Your task to perform on an android device: turn off wifi Image 0: 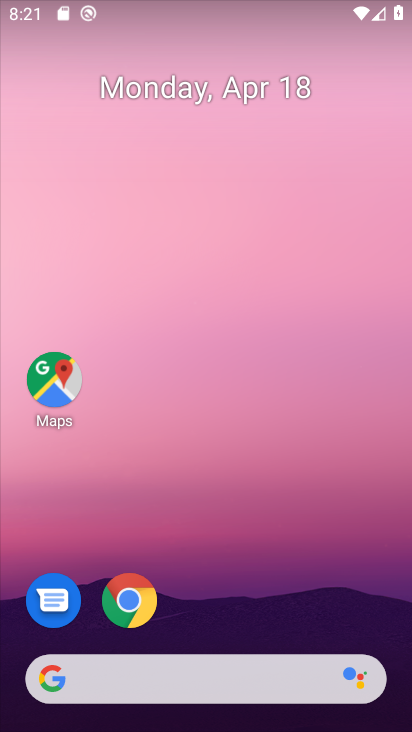
Step 0: drag from (329, 543) to (243, 11)
Your task to perform on an android device: turn off wifi Image 1: 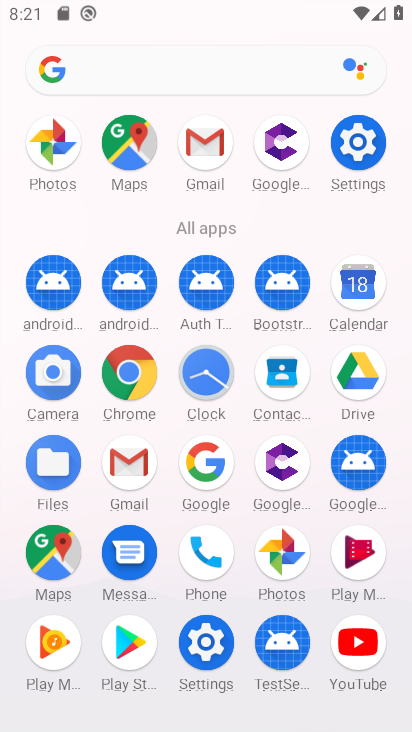
Step 1: click (206, 638)
Your task to perform on an android device: turn off wifi Image 2: 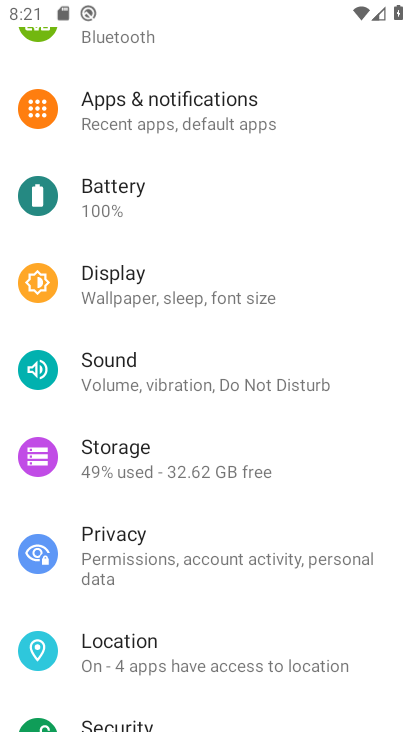
Step 2: drag from (217, 156) to (245, 475)
Your task to perform on an android device: turn off wifi Image 3: 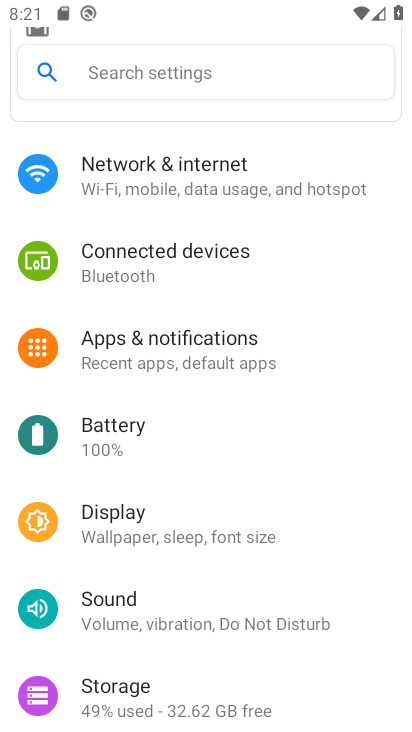
Step 3: click (233, 170)
Your task to perform on an android device: turn off wifi Image 4: 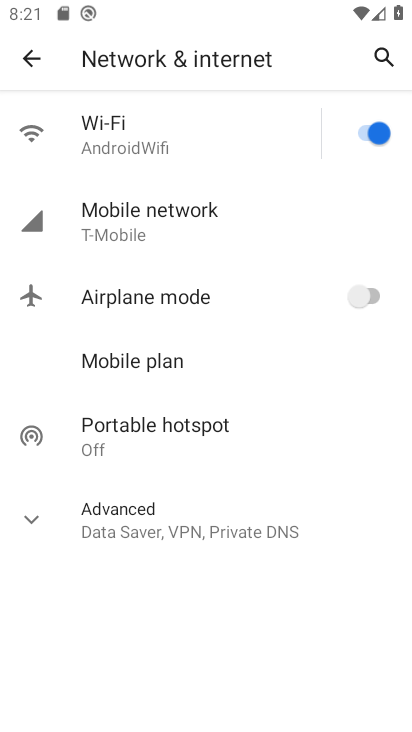
Step 4: click (366, 126)
Your task to perform on an android device: turn off wifi Image 5: 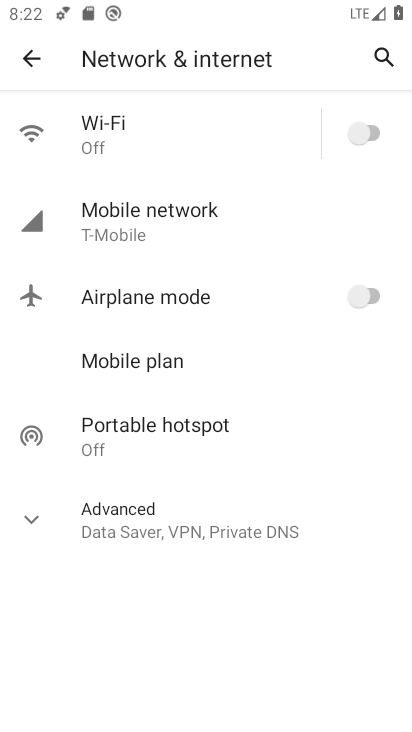
Step 5: task complete